Your task to perform on an android device: open chrome and create a bookmark for the current page Image 0: 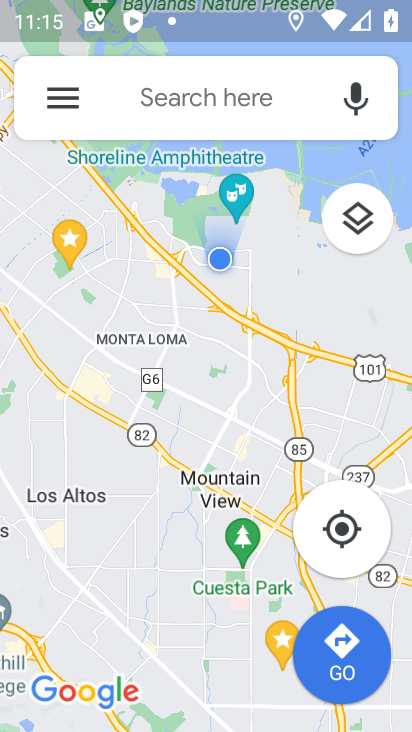
Step 0: press back button
Your task to perform on an android device: open chrome and create a bookmark for the current page Image 1: 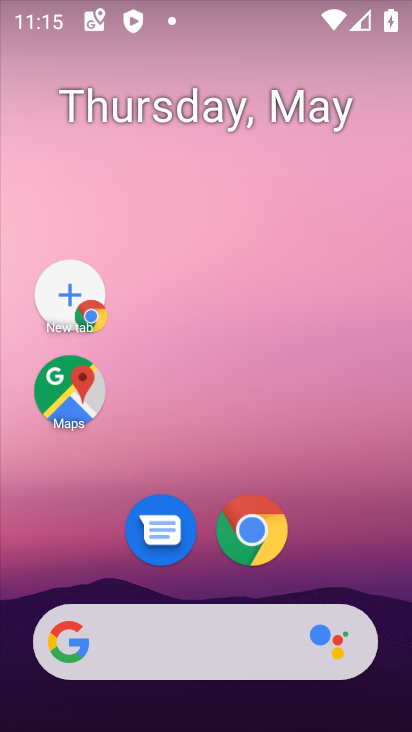
Step 1: drag from (310, 595) to (184, 113)
Your task to perform on an android device: open chrome and create a bookmark for the current page Image 2: 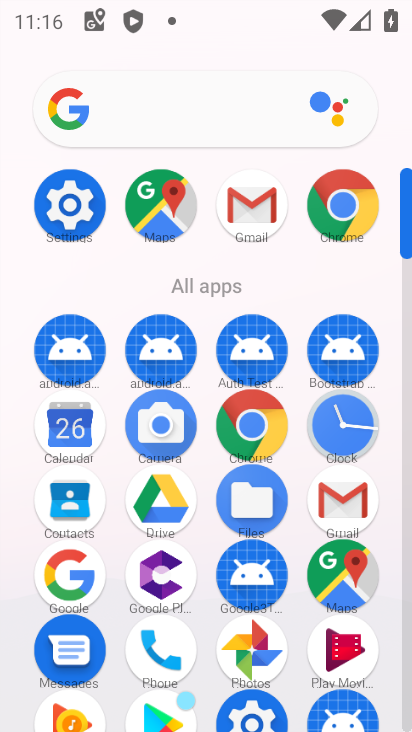
Step 2: click (322, 202)
Your task to perform on an android device: open chrome and create a bookmark for the current page Image 3: 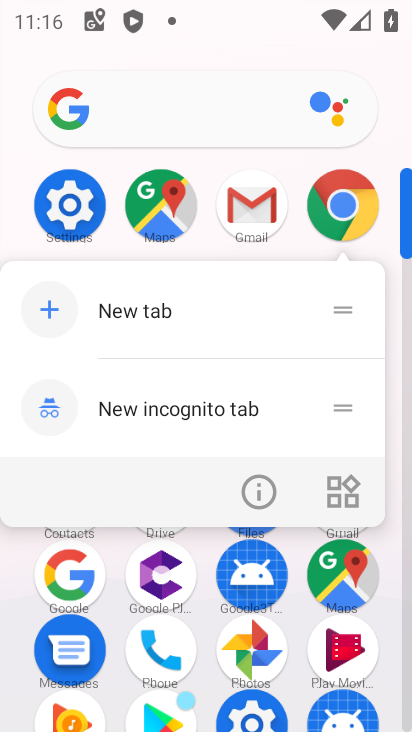
Step 3: click (139, 318)
Your task to perform on an android device: open chrome and create a bookmark for the current page Image 4: 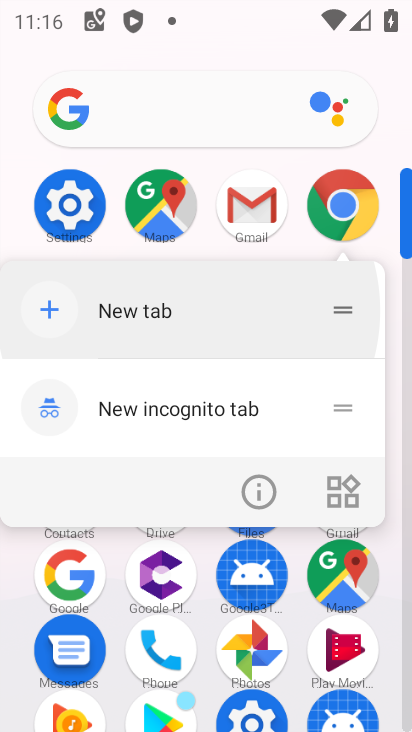
Step 4: click (142, 317)
Your task to perform on an android device: open chrome and create a bookmark for the current page Image 5: 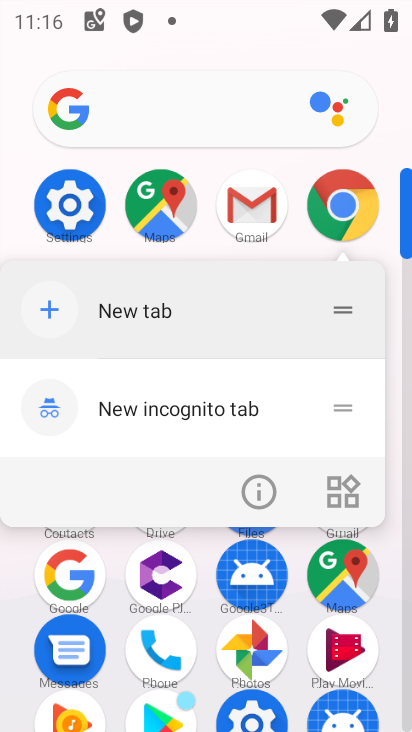
Step 5: click (146, 318)
Your task to perform on an android device: open chrome and create a bookmark for the current page Image 6: 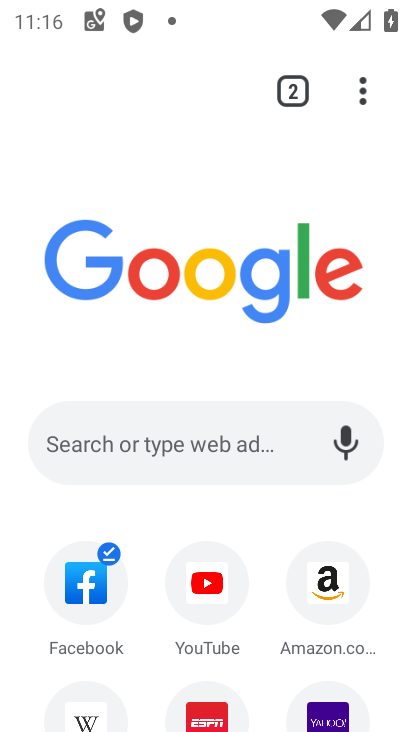
Step 6: click (88, 434)
Your task to perform on an android device: open chrome and create a bookmark for the current page Image 7: 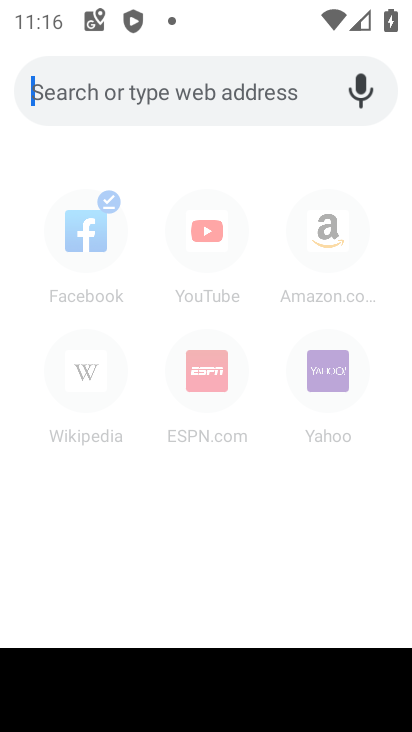
Step 7: type "www.mrtyu.com"
Your task to perform on an android device: open chrome and create a bookmark for the current page Image 8: 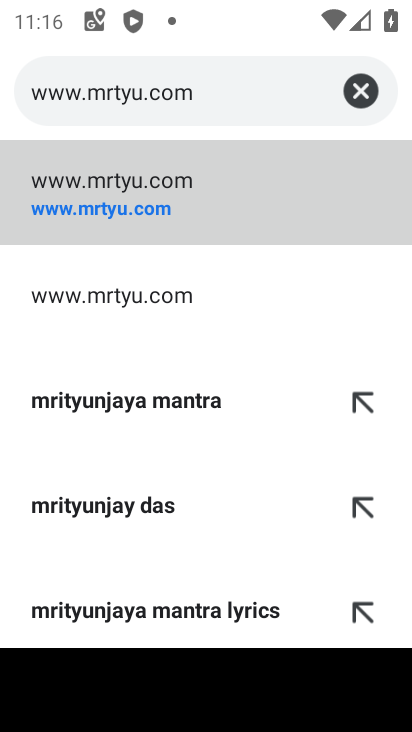
Step 8: click (130, 194)
Your task to perform on an android device: open chrome and create a bookmark for the current page Image 9: 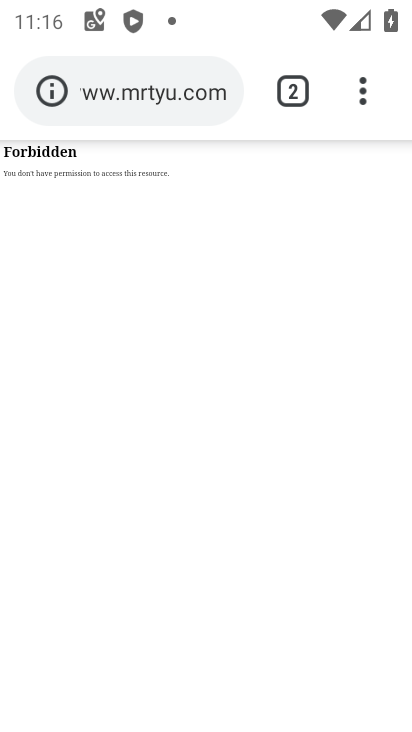
Step 9: click (364, 92)
Your task to perform on an android device: open chrome and create a bookmark for the current page Image 10: 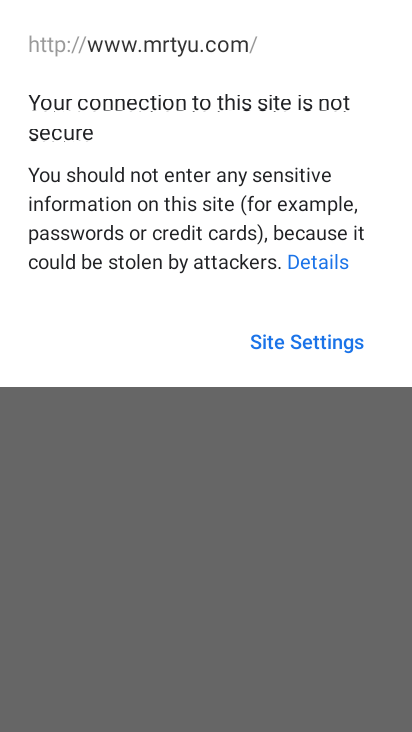
Step 10: drag from (367, 90) to (250, 99)
Your task to perform on an android device: open chrome and create a bookmark for the current page Image 11: 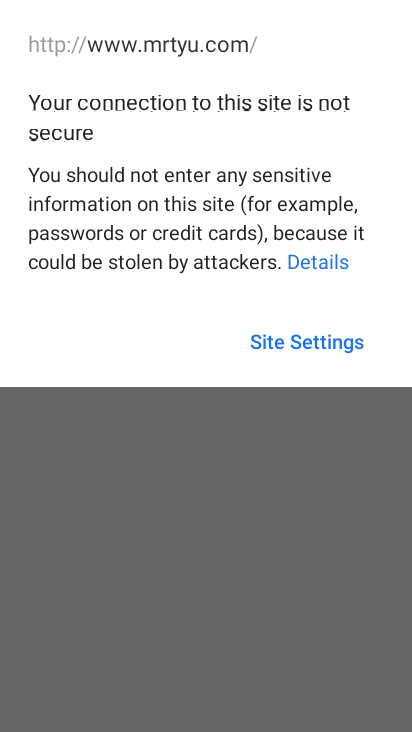
Step 11: click (300, 344)
Your task to perform on an android device: open chrome and create a bookmark for the current page Image 12: 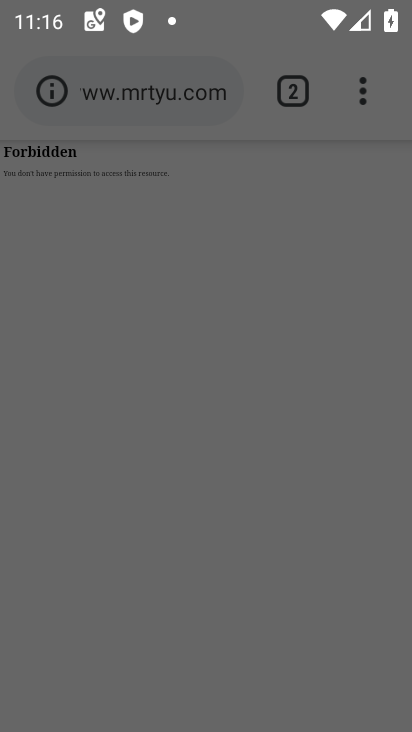
Step 12: click (305, 404)
Your task to perform on an android device: open chrome and create a bookmark for the current page Image 13: 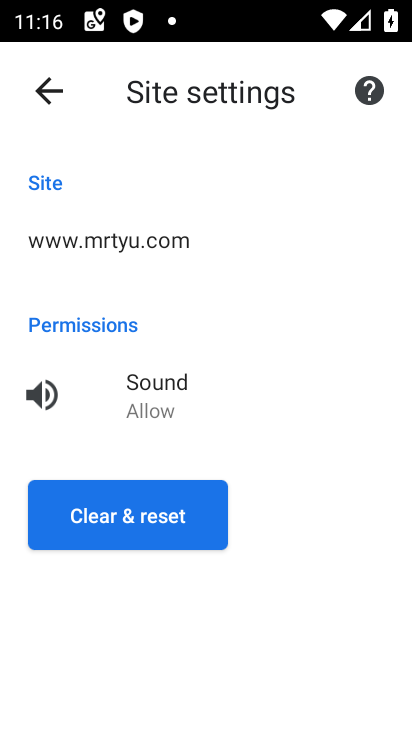
Step 13: click (39, 76)
Your task to perform on an android device: open chrome and create a bookmark for the current page Image 14: 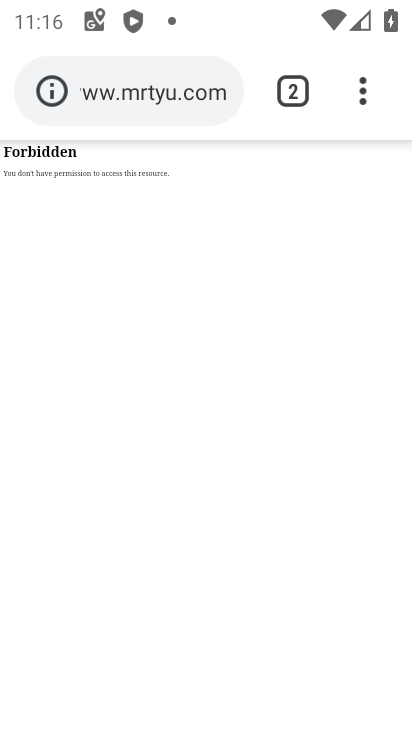
Step 14: drag from (364, 90) to (148, 85)
Your task to perform on an android device: open chrome and create a bookmark for the current page Image 15: 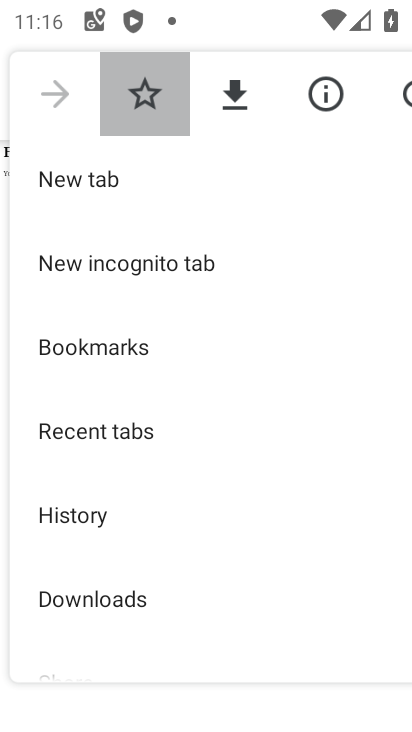
Step 15: click (148, 85)
Your task to perform on an android device: open chrome and create a bookmark for the current page Image 16: 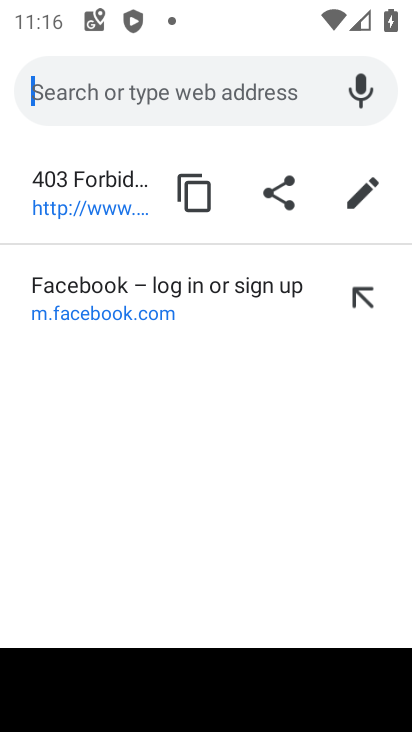
Step 16: task complete